Your task to perform on an android device: Open Maps and search for coffee Image 0: 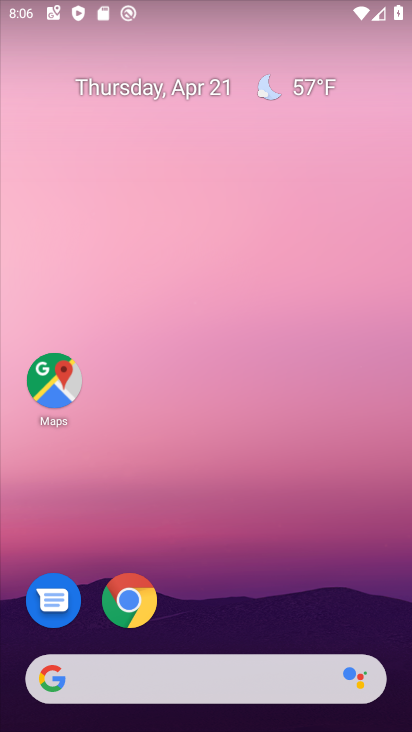
Step 0: drag from (246, 388) to (267, 80)
Your task to perform on an android device: Open Maps and search for coffee Image 1: 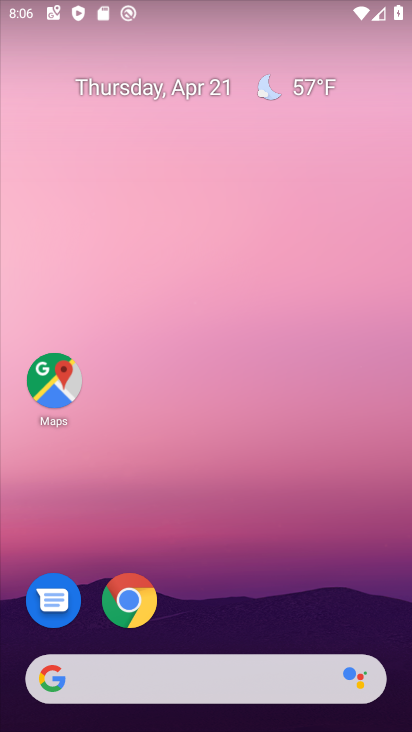
Step 1: drag from (266, 615) to (275, 49)
Your task to perform on an android device: Open Maps and search for coffee Image 2: 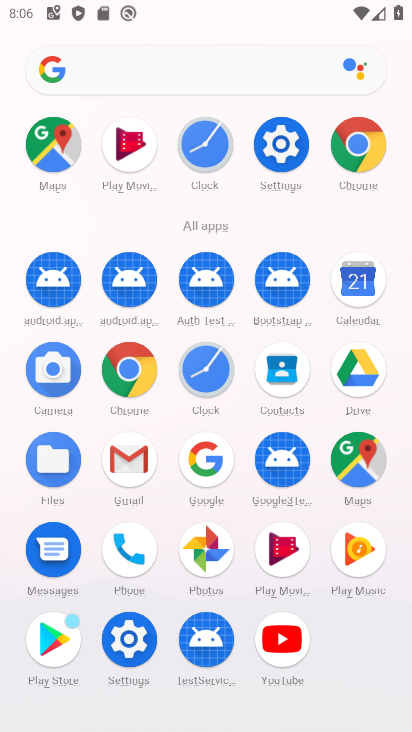
Step 2: click (58, 149)
Your task to perform on an android device: Open Maps and search for coffee Image 3: 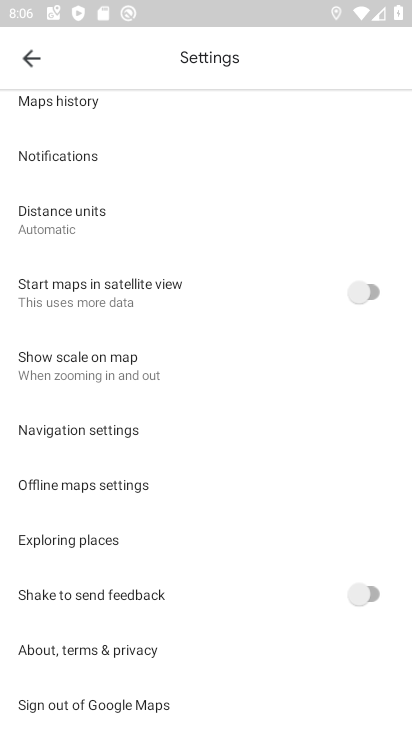
Step 3: click (32, 64)
Your task to perform on an android device: Open Maps and search for coffee Image 4: 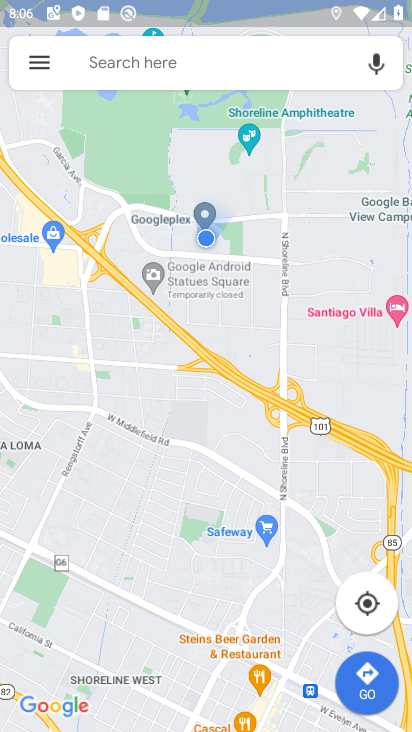
Step 4: click (168, 57)
Your task to perform on an android device: Open Maps and search for coffee Image 5: 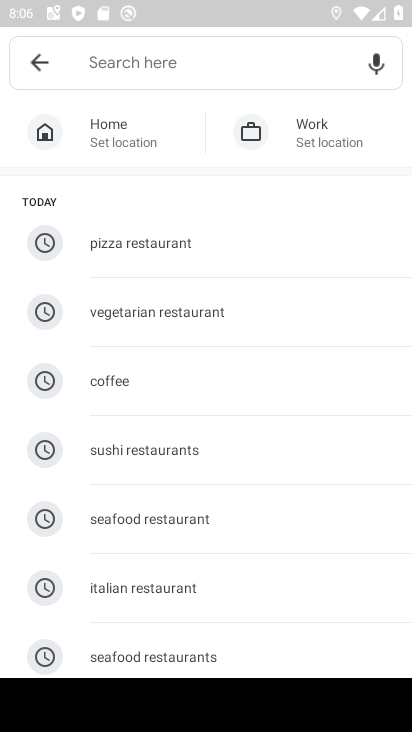
Step 5: click (137, 400)
Your task to perform on an android device: Open Maps and search for coffee Image 6: 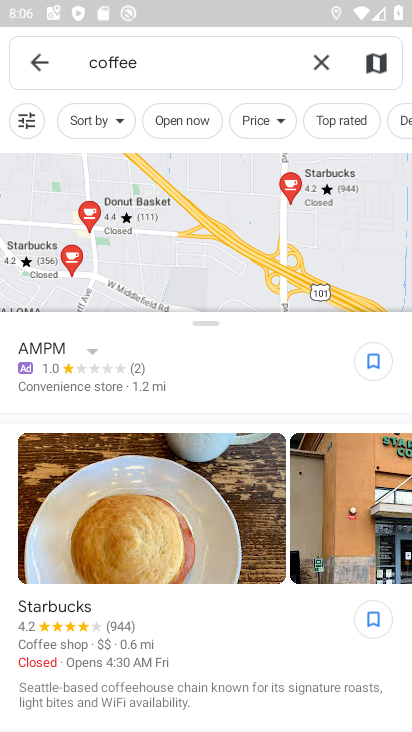
Step 6: task complete